Your task to perform on an android device: delete browsing data in the chrome app Image 0: 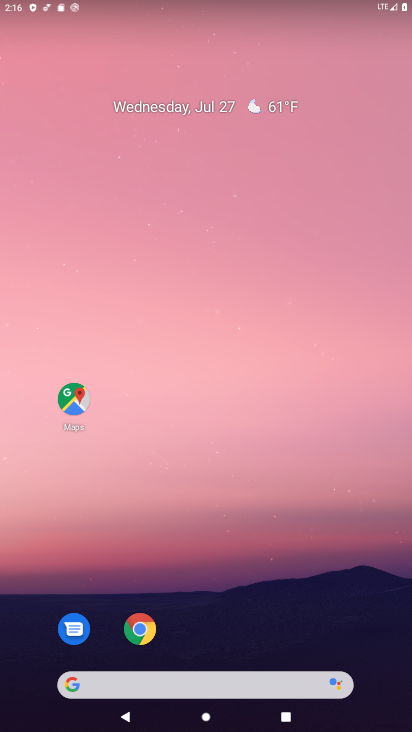
Step 0: click (141, 631)
Your task to perform on an android device: delete browsing data in the chrome app Image 1: 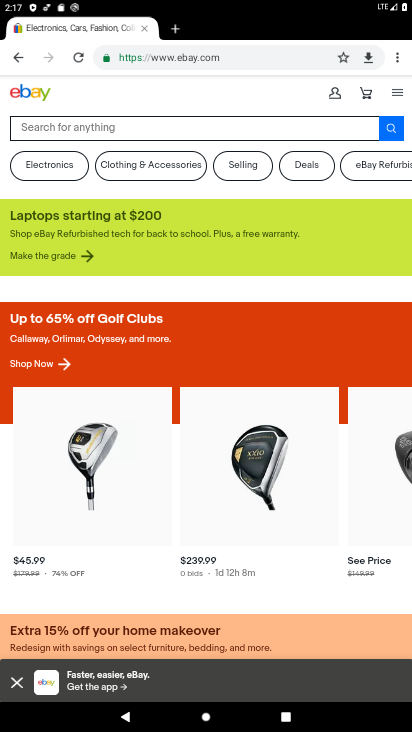
Step 1: click (397, 58)
Your task to perform on an android device: delete browsing data in the chrome app Image 2: 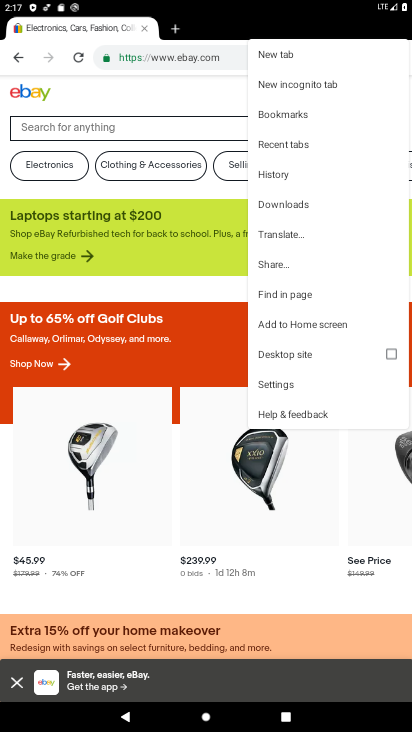
Step 2: click (280, 387)
Your task to perform on an android device: delete browsing data in the chrome app Image 3: 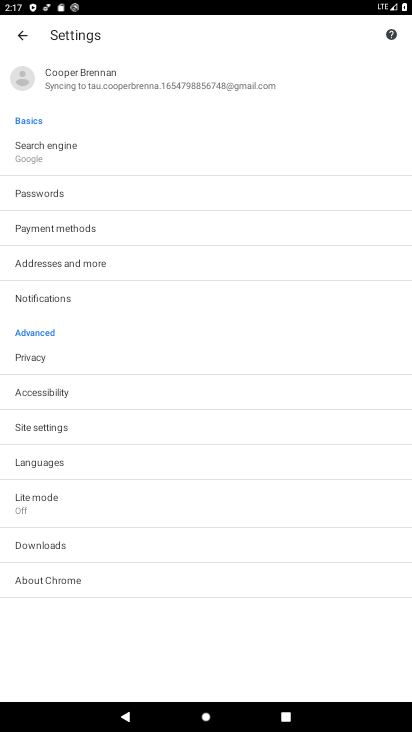
Step 3: click (38, 355)
Your task to perform on an android device: delete browsing data in the chrome app Image 4: 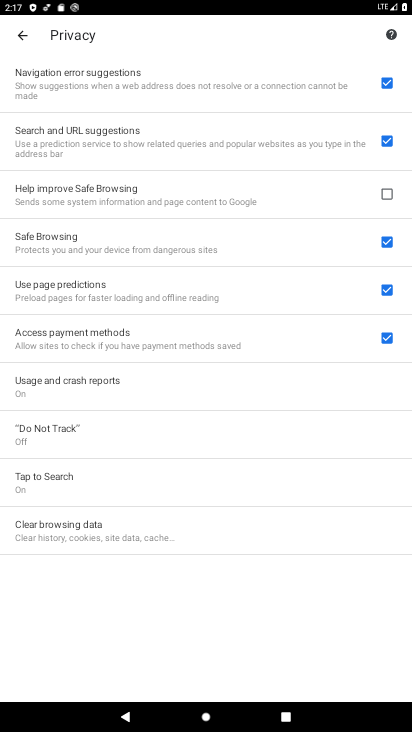
Step 4: click (82, 527)
Your task to perform on an android device: delete browsing data in the chrome app Image 5: 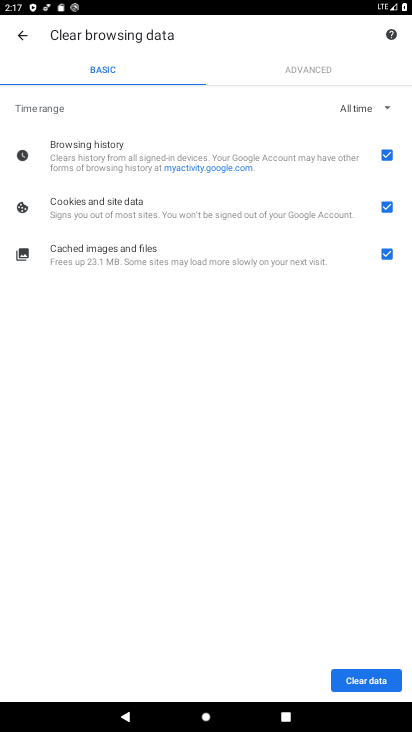
Step 5: click (374, 676)
Your task to perform on an android device: delete browsing data in the chrome app Image 6: 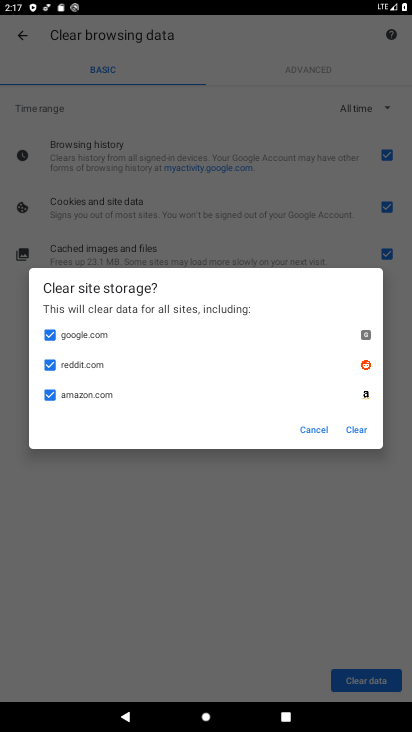
Step 6: click (354, 429)
Your task to perform on an android device: delete browsing data in the chrome app Image 7: 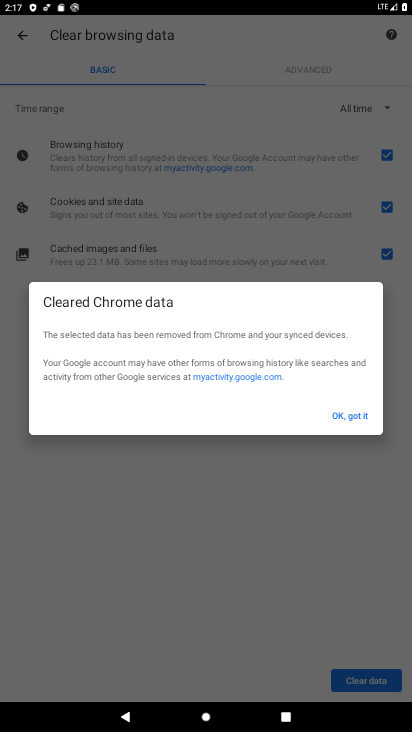
Step 7: click (346, 416)
Your task to perform on an android device: delete browsing data in the chrome app Image 8: 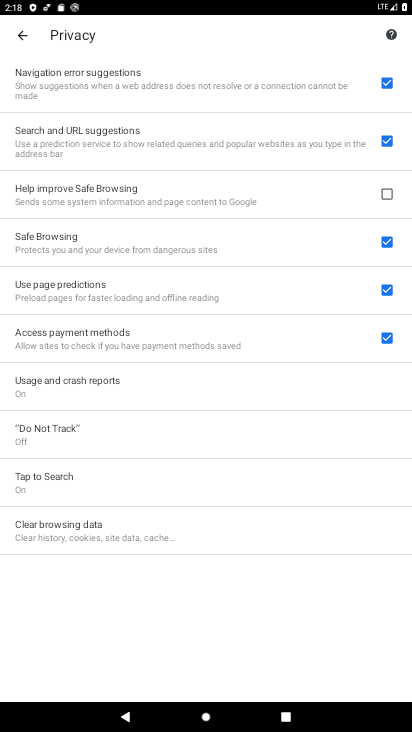
Step 8: task complete